Your task to perform on an android device: Clear the shopping cart on ebay. Image 0: 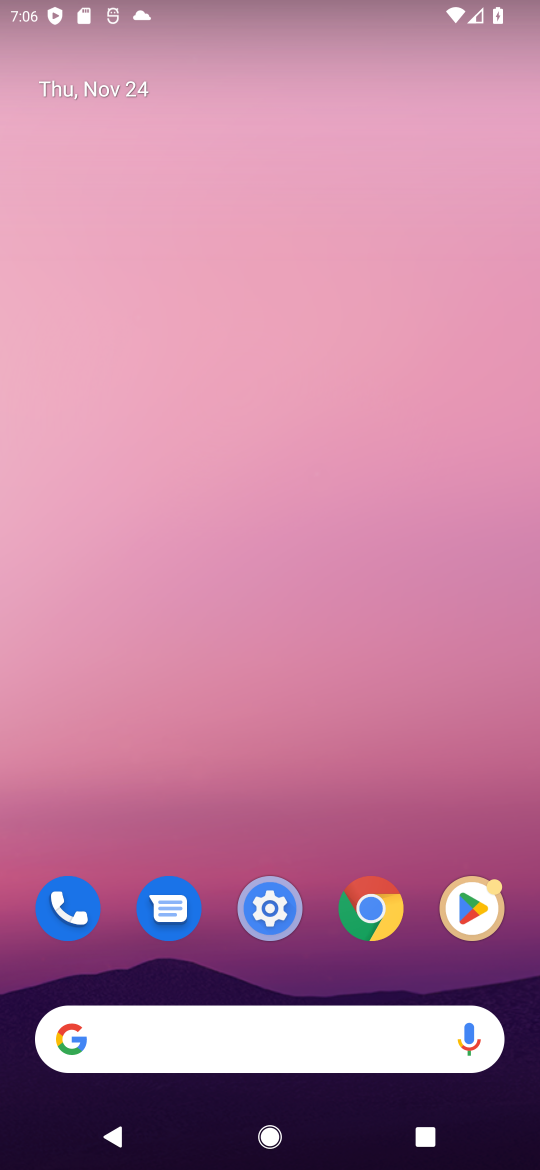
Step 0: click (365, 1021)
Your task to perform on an android device: Clear the shopping cart on ebay. Image 1: 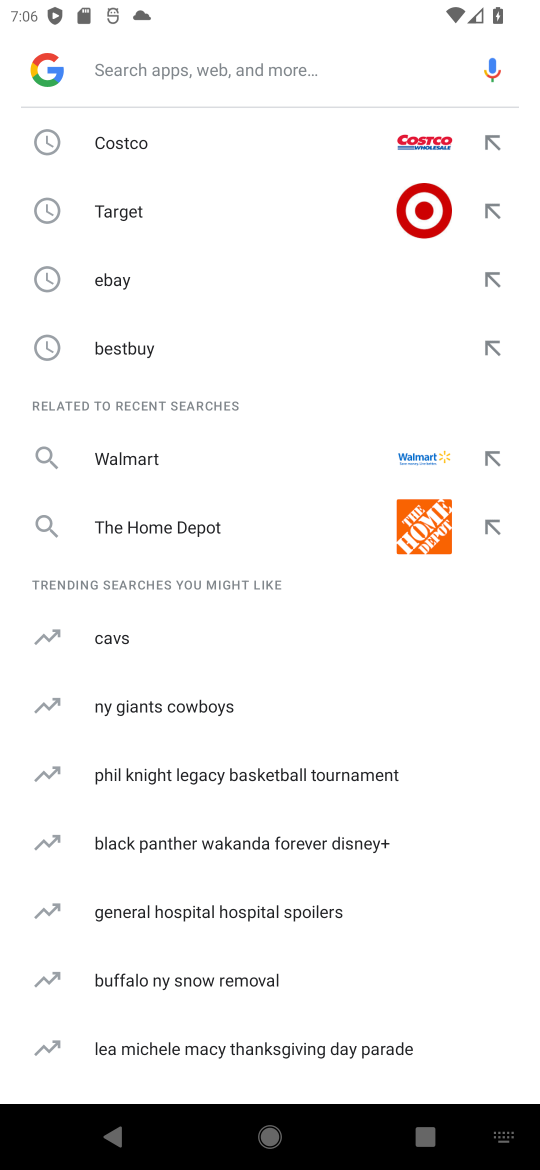
Step 1: click (175, 281)
Your task to perform on an android device: Clear the shopping cart on ebay. Image 2: 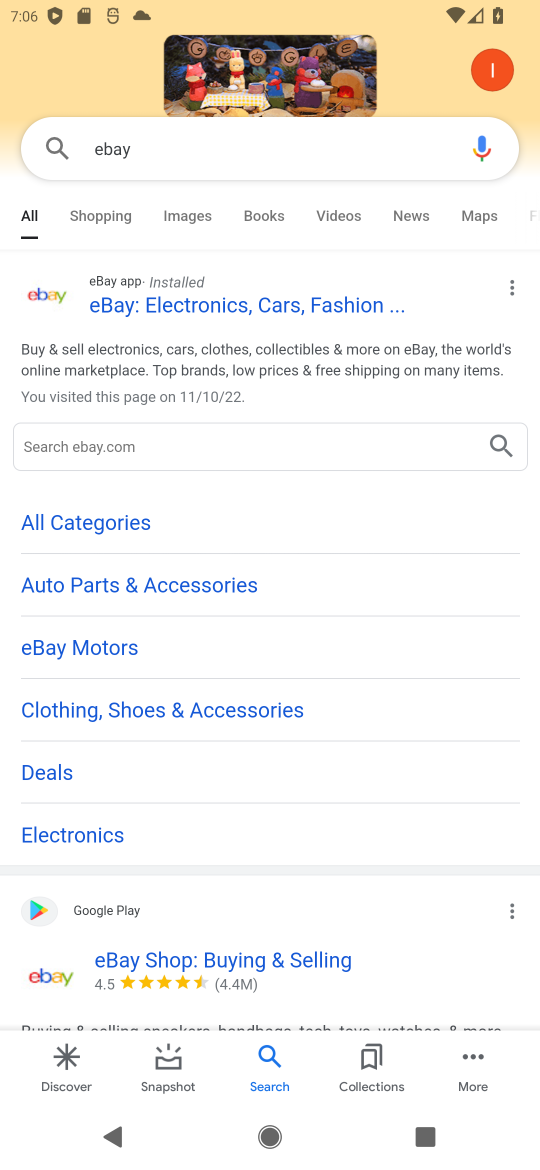
Step 2: click (169, 288)
Your task to perform on an android device: Clear the shopping cart on ebay. Image 3: 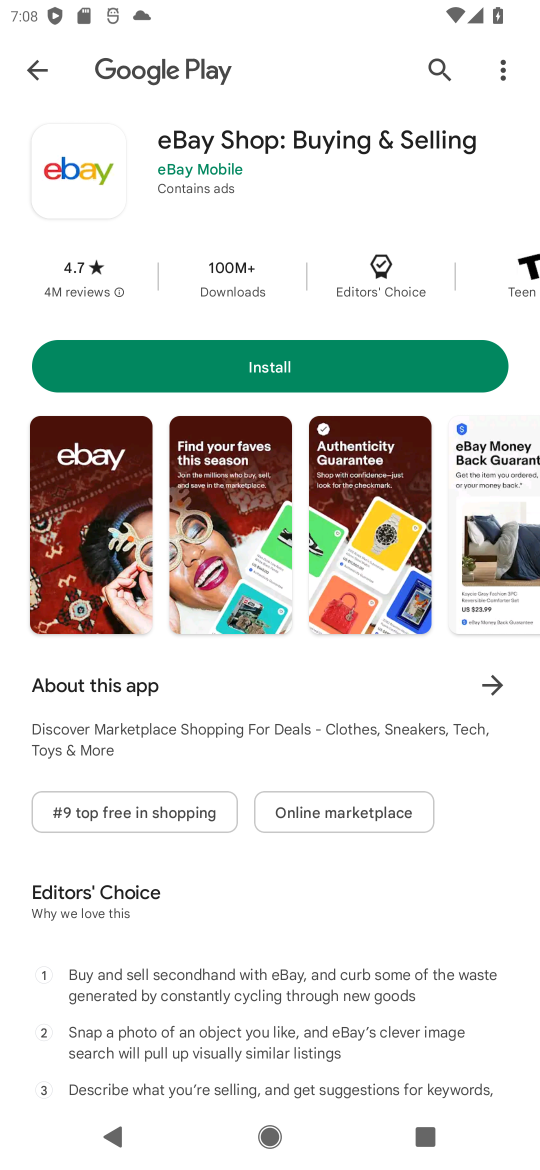
Step 3: task complete